Your task to perform on an android device: Open calendar and show me the first week of next month Image 0: 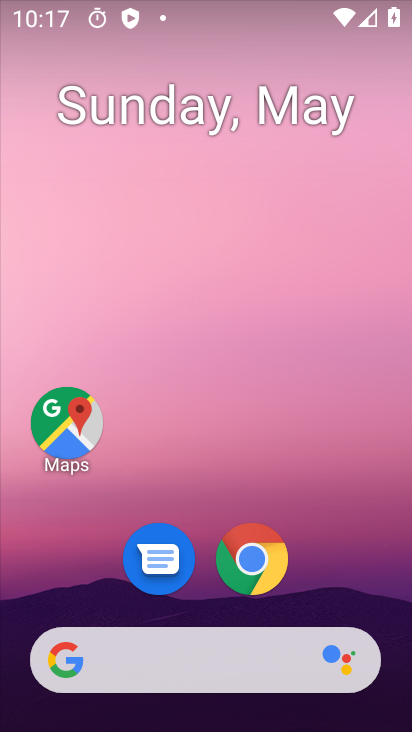
Step 0: drag from (353, 559) to (313, 63)
Your task to perform on an android device: Open calendar and show me the first week of next month Image 1: 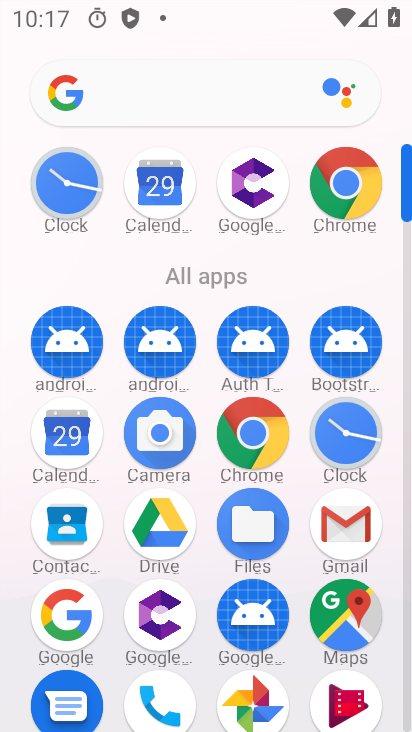
Step 1: click (58, 437)
Your task to perform on an android device: Open calendar and show me the first week of next month Image 2: 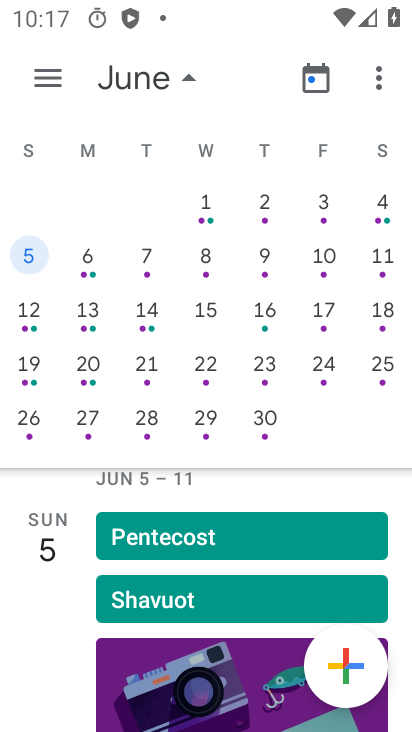
Step 2: click (205, 196)
Your task to perform on an android device: Open calendar and show me the first week of next month Image 3: 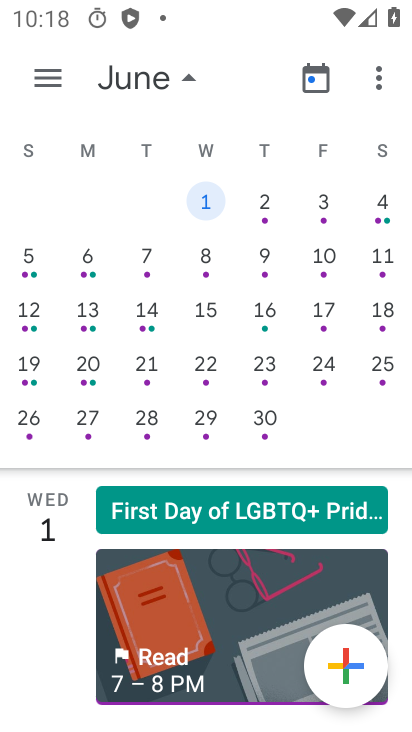
Step 3: task complete